Your task to perform on an android device: Open Google Chrome Image 0: 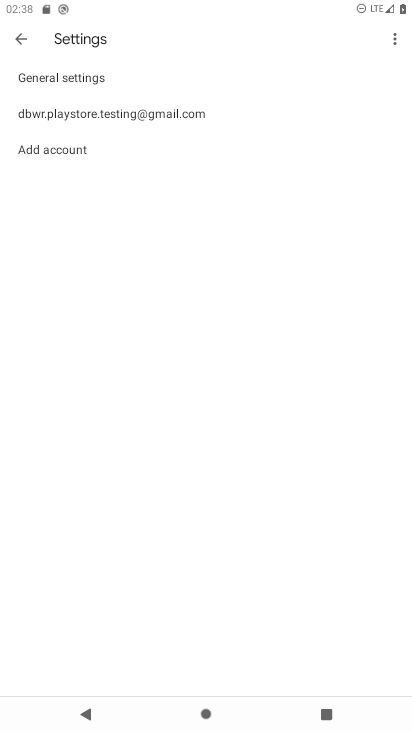
Step 0: press home button
Your task to perform on an android device: Open Google Chrome Image 1: 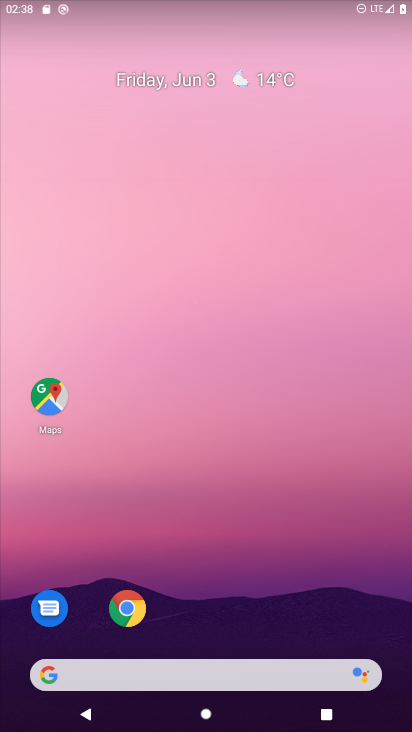
Step 1: click (127, 608)
Your task to perform on an android device: Open Google Chrome Image 2: 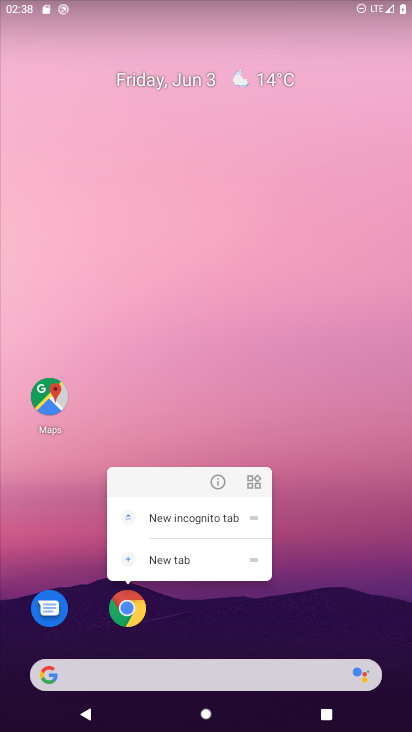
Step 2: click (126, 607)
Your task to perform on an android device: Open Google Chrome Image 3: 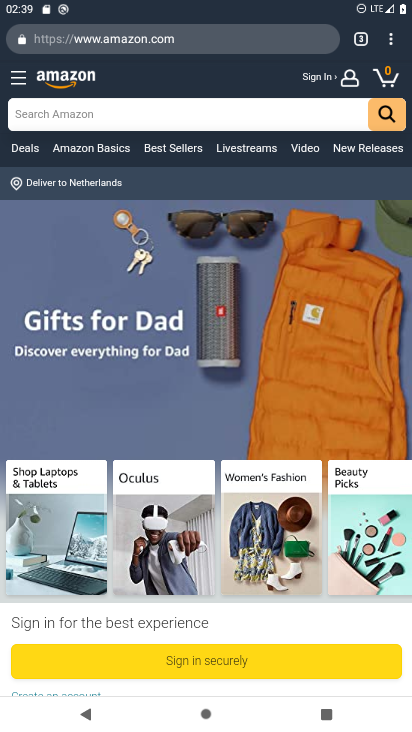
Step 3: task complete